Your task to perform on an android device: Open privacy settings Image 0: 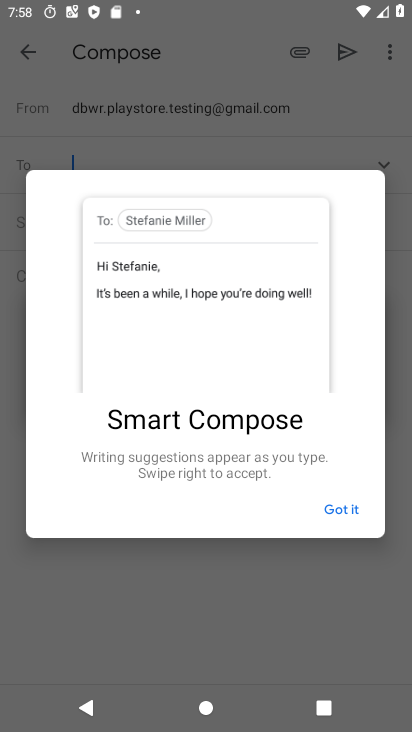
Step 0: press home button
Your task to perform on an android device: Open privacy settings Image 1: 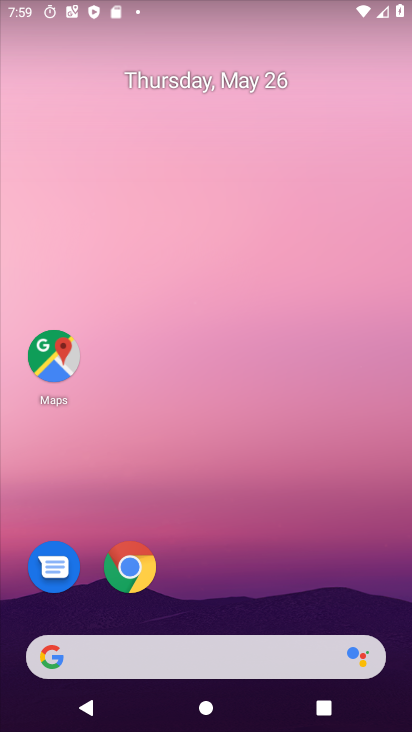
Step 1: drag from (205, 604) to (299, 133)
Your task to perform on an android device: Open privacy settings Image 2: 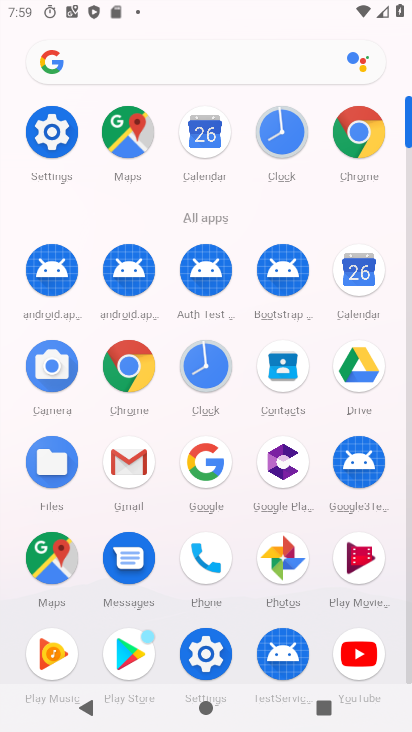
Step 2: click (52, 146)
Your task to perform on an android device: Open privacy settings Image 3: 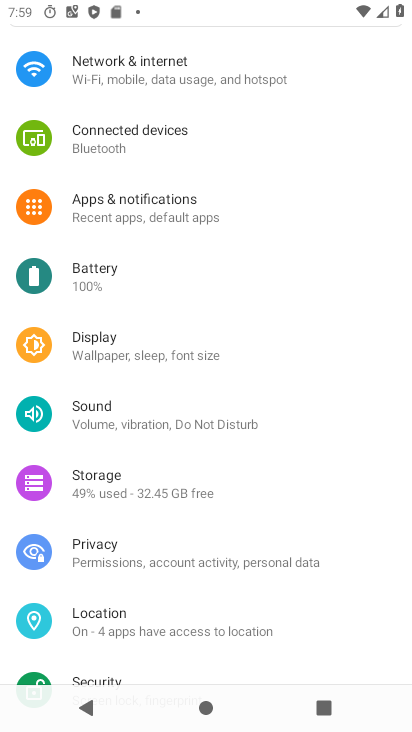
Step 3: click (124, 552)
Your task to perform on an android device: Open privacy settings Image 4: 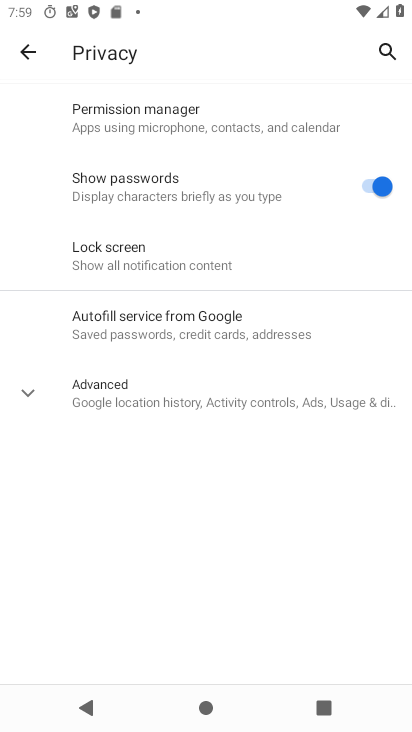
Step 4: task complete